Your task to perform on an android device: see sites visited before in the chrome app Image 0: 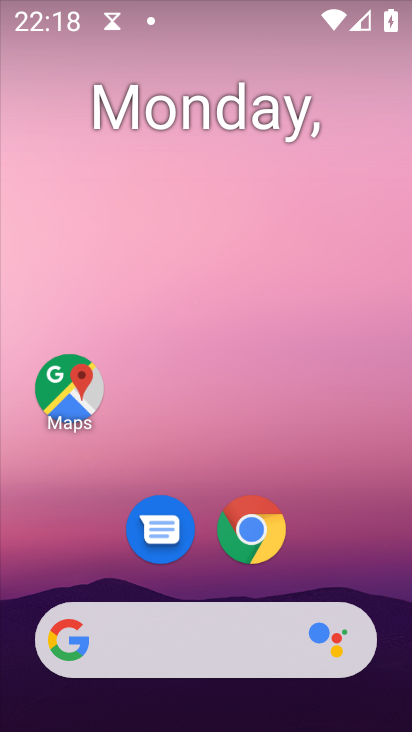
Step 0: click (251, 529)
Your task to perform on an android device: see sites visited before in the chrome app Image 1: 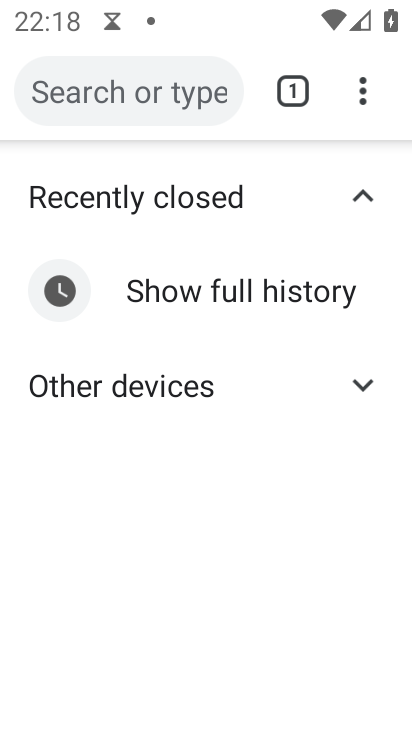
Step 1: click (364, 94)
Your task to perform on an android device: see sites visited before in the chrome app Image 2: 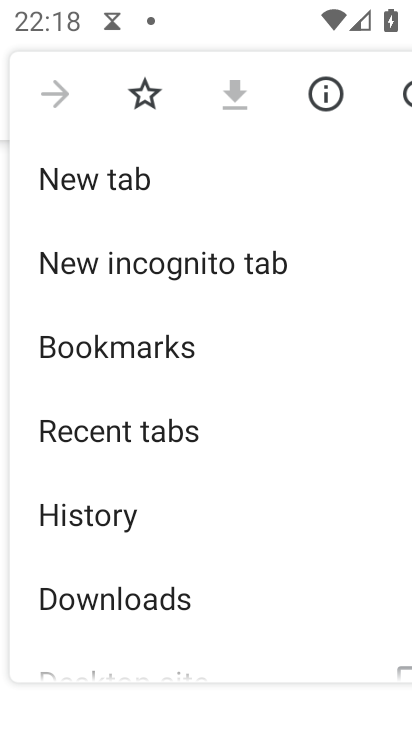
Step 2: drag from (171, 470) to (234, 389)
Your task to perform on an android device: see sites visited before in the chrome app Image 3: 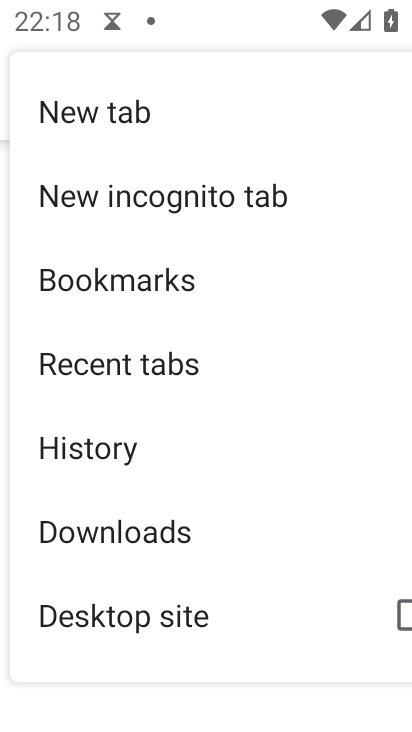
Step 3: drag from (171, 497) to (209, 426)
Your task to perform on an android device: see sites visited before in the chrome app Image 4: 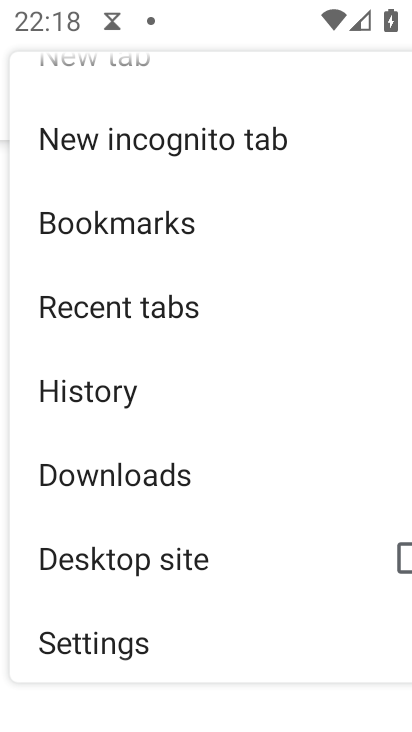
Step 4: click (129, 392)
Your task to perform on an android device: see sites visited before in the chrome app Image 5: 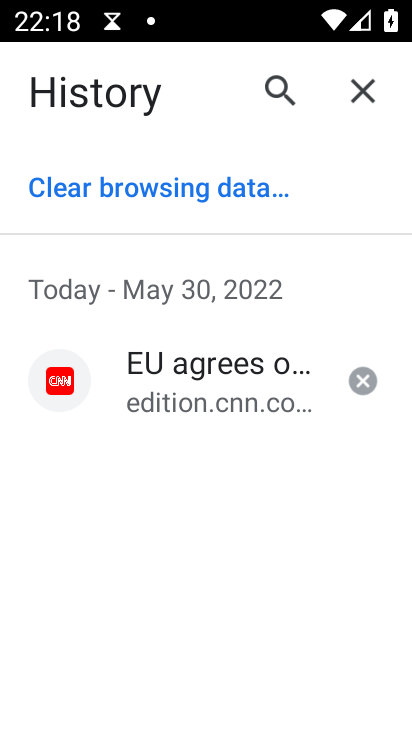
Step 5: task complete